Your task to perform on an android device: Open the calendar app, open the side menu, and click the "Day" option Image 0: 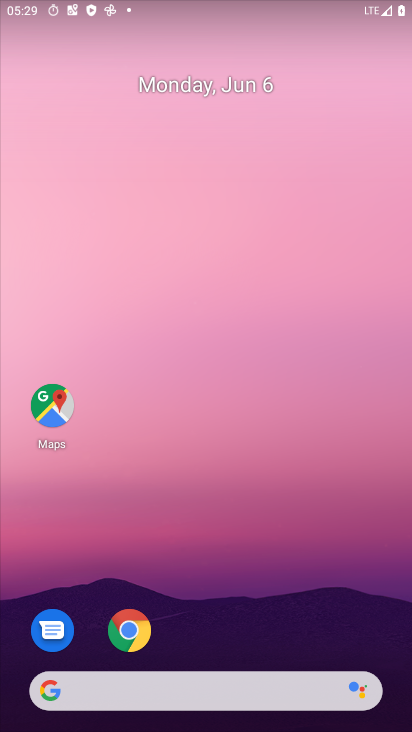
Step 0: drag from (254, 646) to (132, 88)
Your task to perform on an android device: Open the calendar app, open the side menu, and click the "Day" option Image 1: 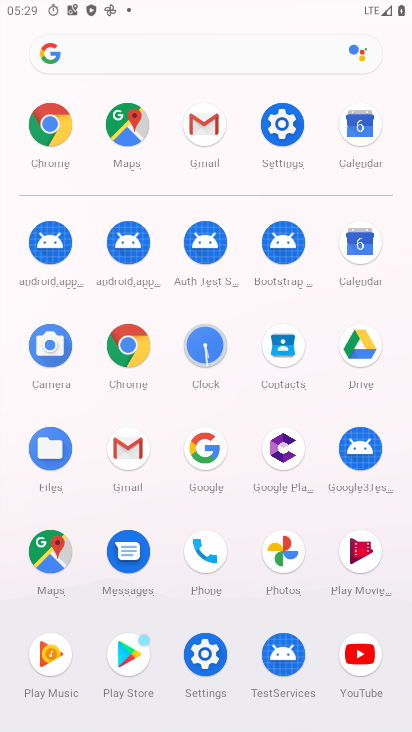
Step 1: click (363, 235)
Your task to perform on an android device: Open the calendar app, open the side menu, and click the "Day" option Image 2: 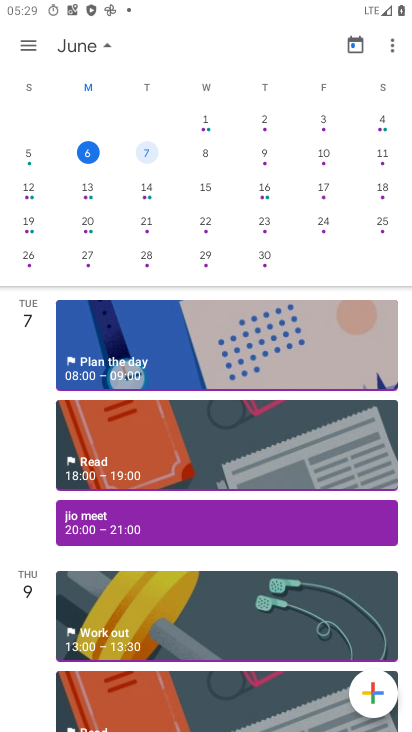
Step 2: click (31, 40)
Your task to perform on an android device: Open the calendar app, open the side menu, and click the "Day" option Image 3: 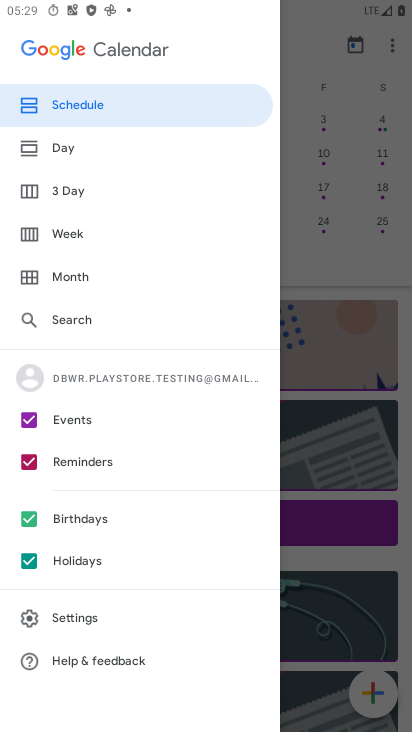
Step 3: click (46, 150)
Your task to perform on an android device: Open the calendar app, open the side menu, and click the "Day" option Image 4: 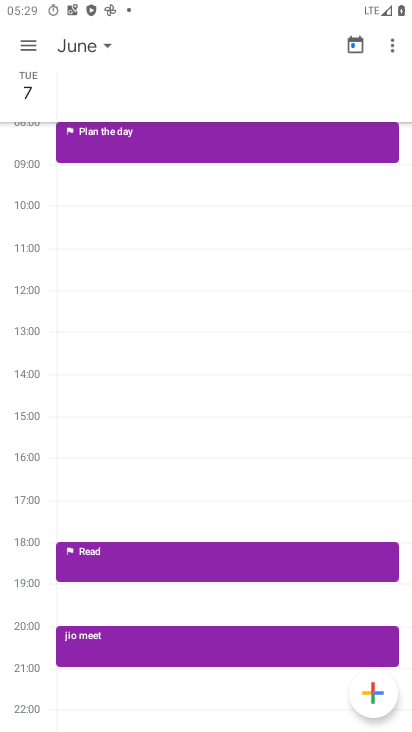
Step 4: task complete